Your task to perform on an android device: turn on translation in the chrome app Image 0: 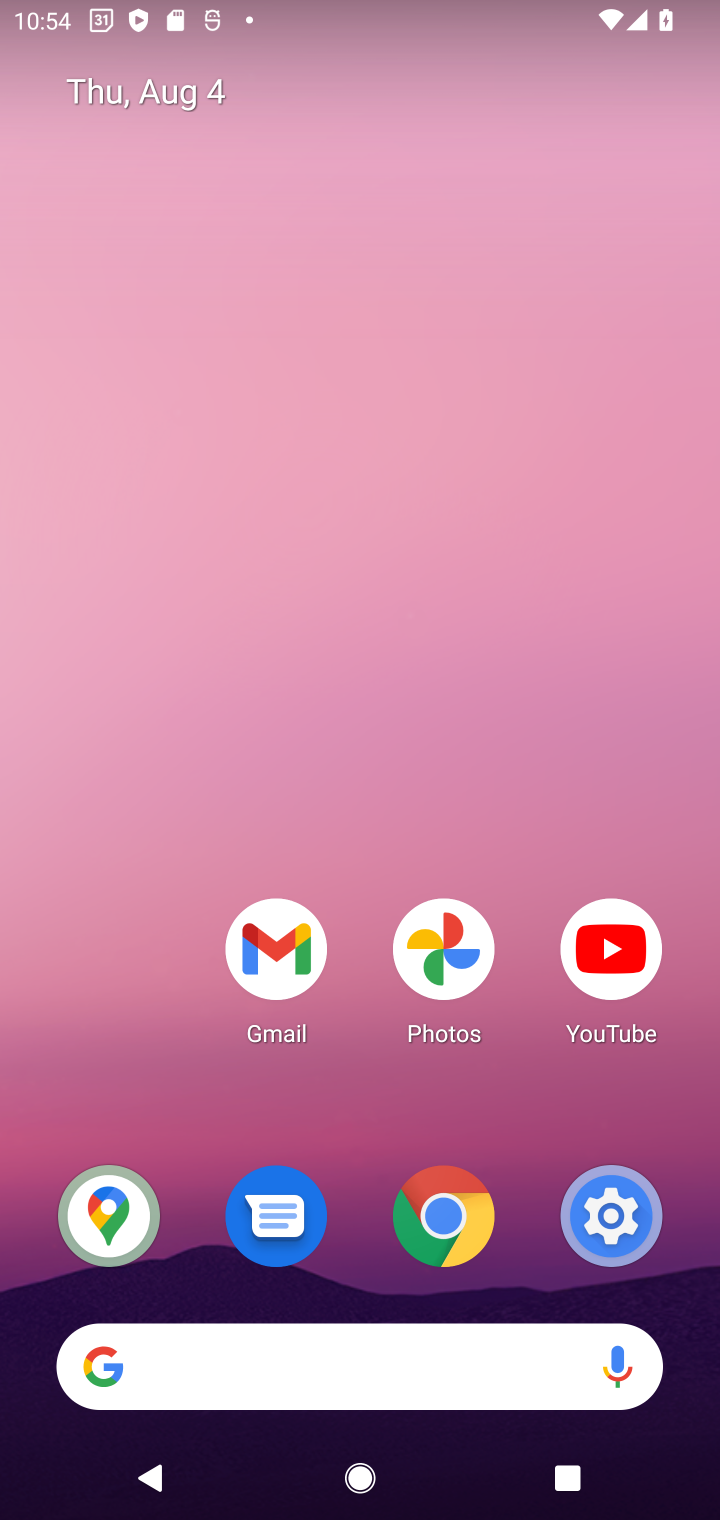
Step 0: click (443, 1214)
Your task to perform on an android device: turn on translation in the chrome app Image 1: 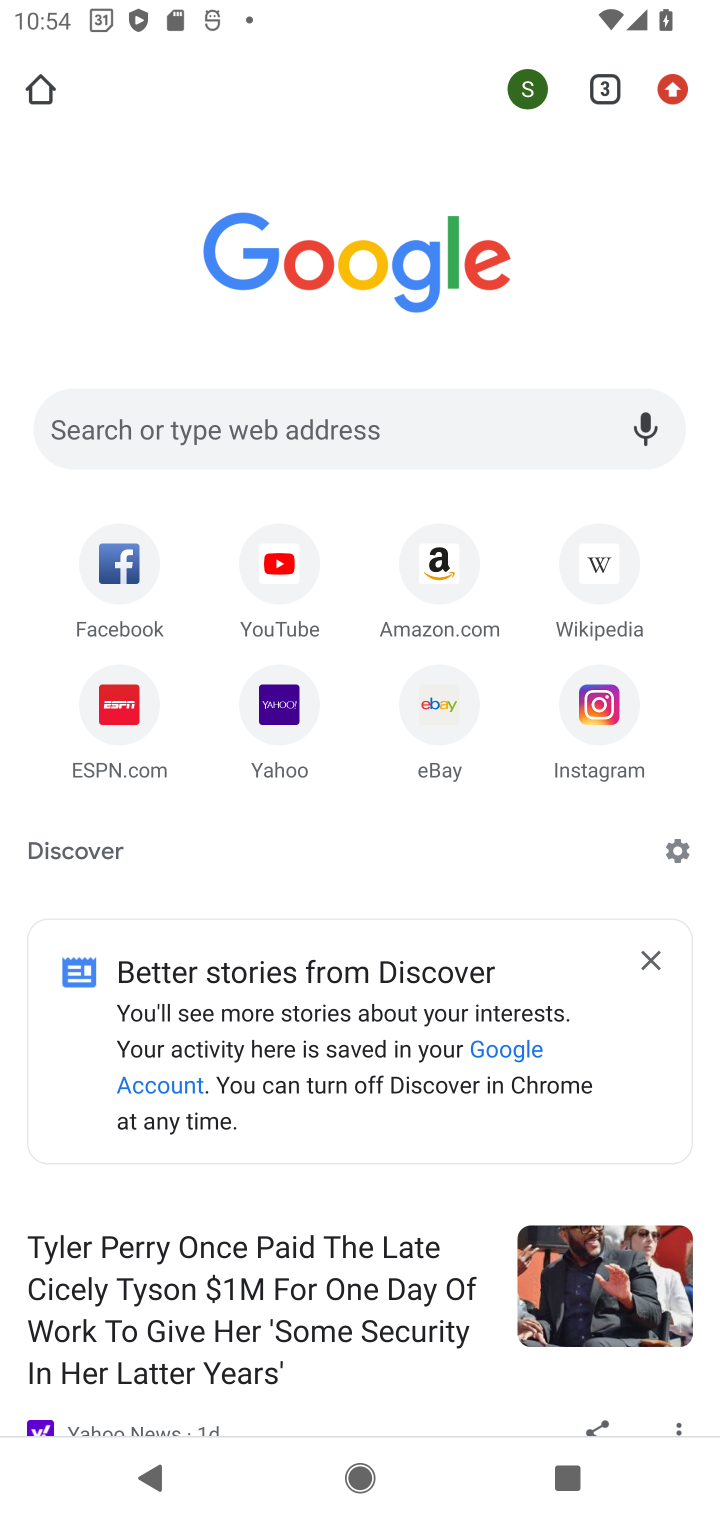
Step 1: click (672, 88)
Your task to perform on an android device: turn on translation in the chrome app Image 2: 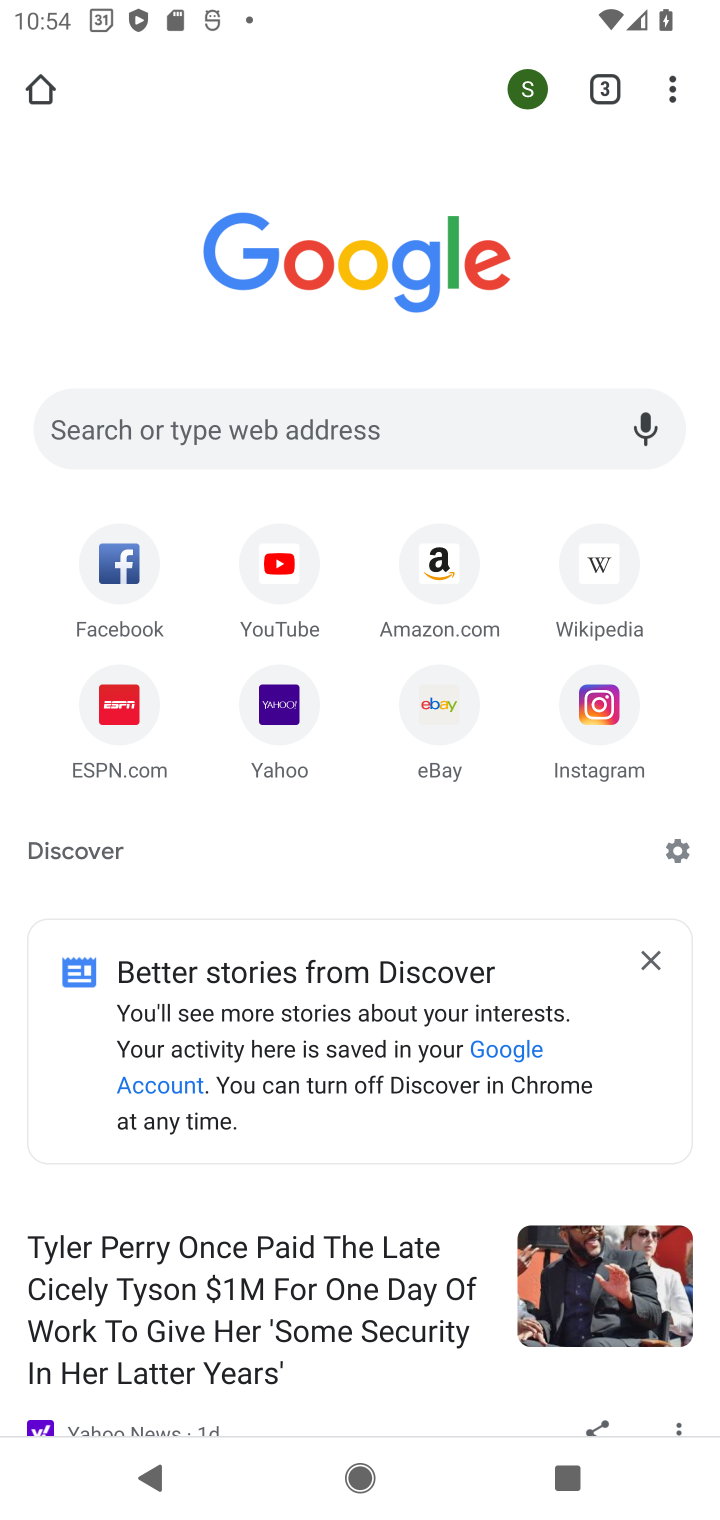
Step 2: click (680, 92)
Your task to perform on an android device: turn on translation in the chrome app Image 3: 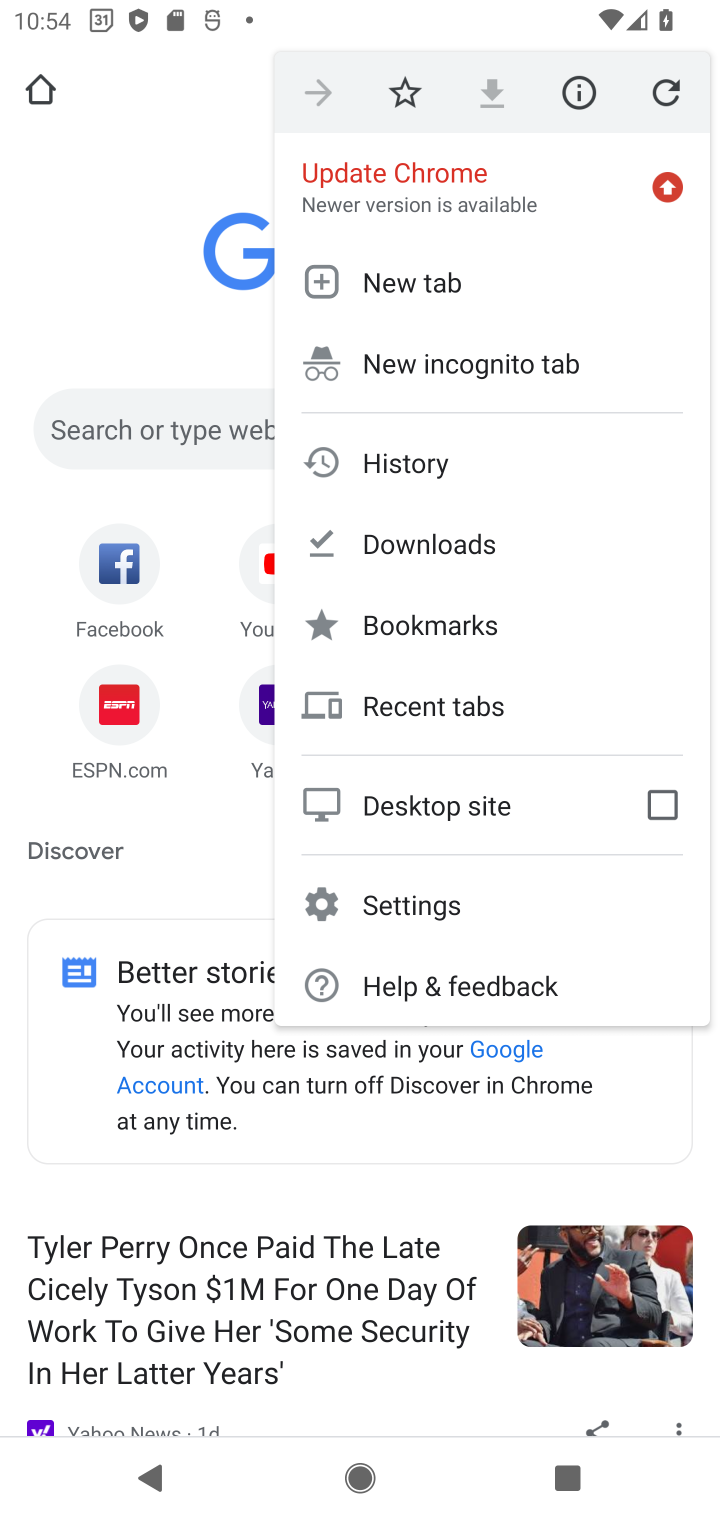
Step 3: click (449, 896)
Your task to perform on an android device: turn on translation in the chrome app Image 4: 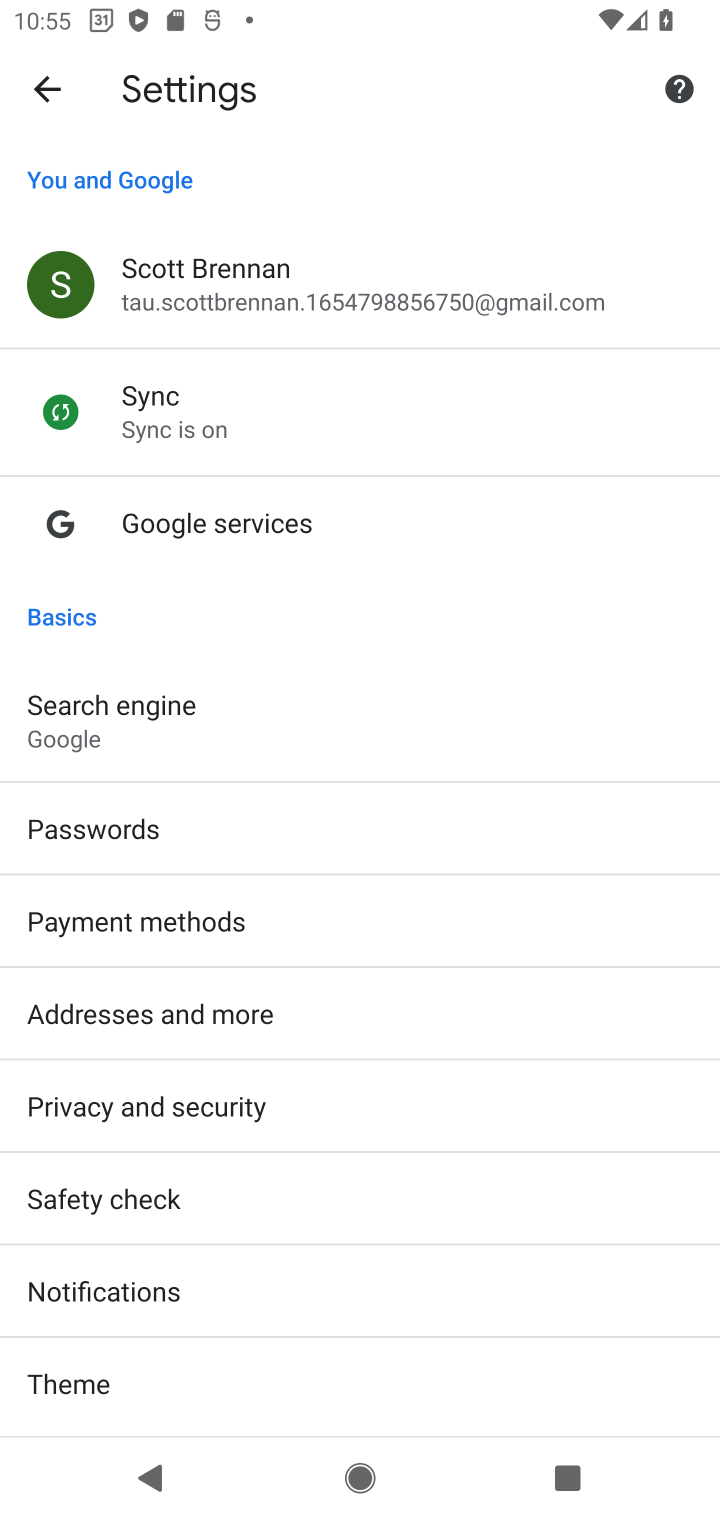
Step 4: drag from (179, 1039) to (288, 685)
Your task to perform on an android device: turn on translation in the chrome app Image 5: 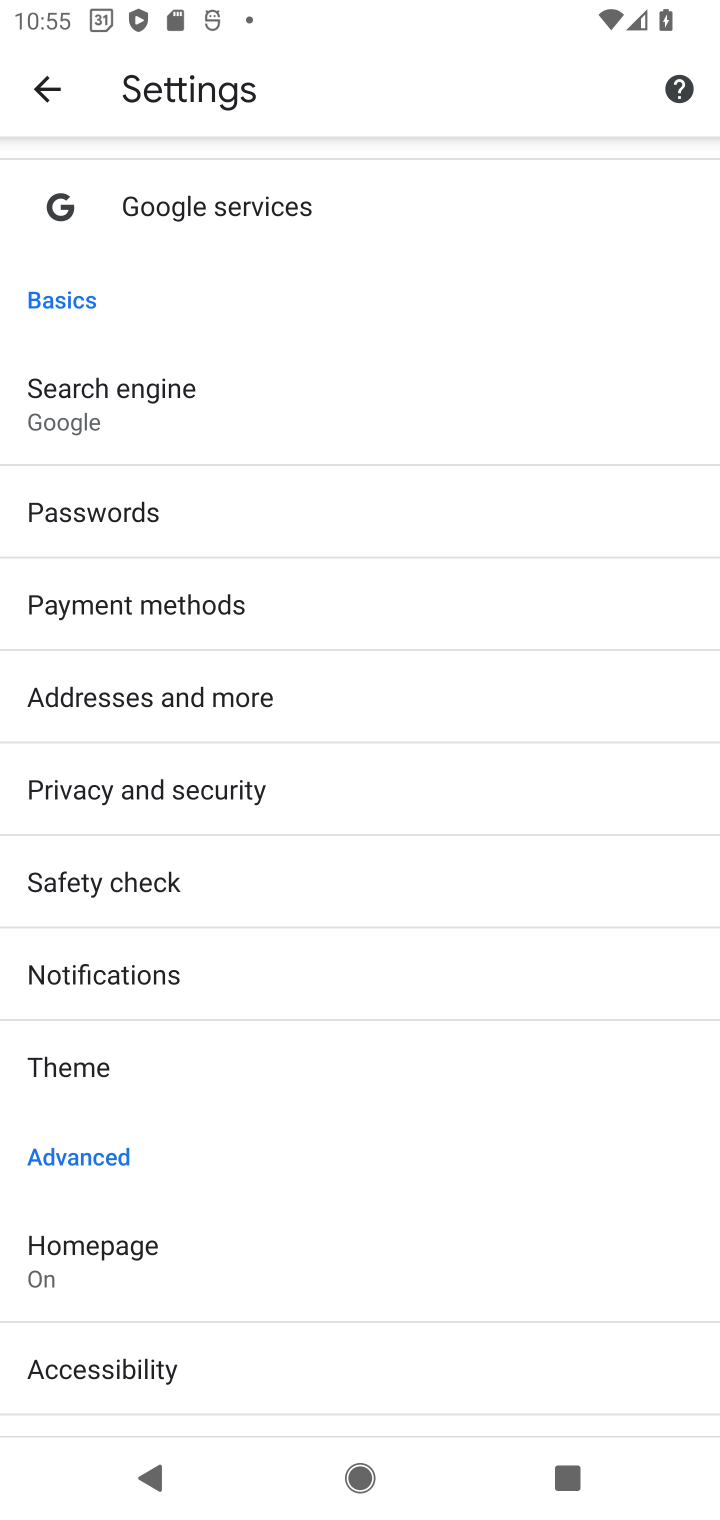
Step 5: drag from (171, 1138) to (268, 855)
Your task to perform on an android device: turn on translation in the chrome app Image 6: 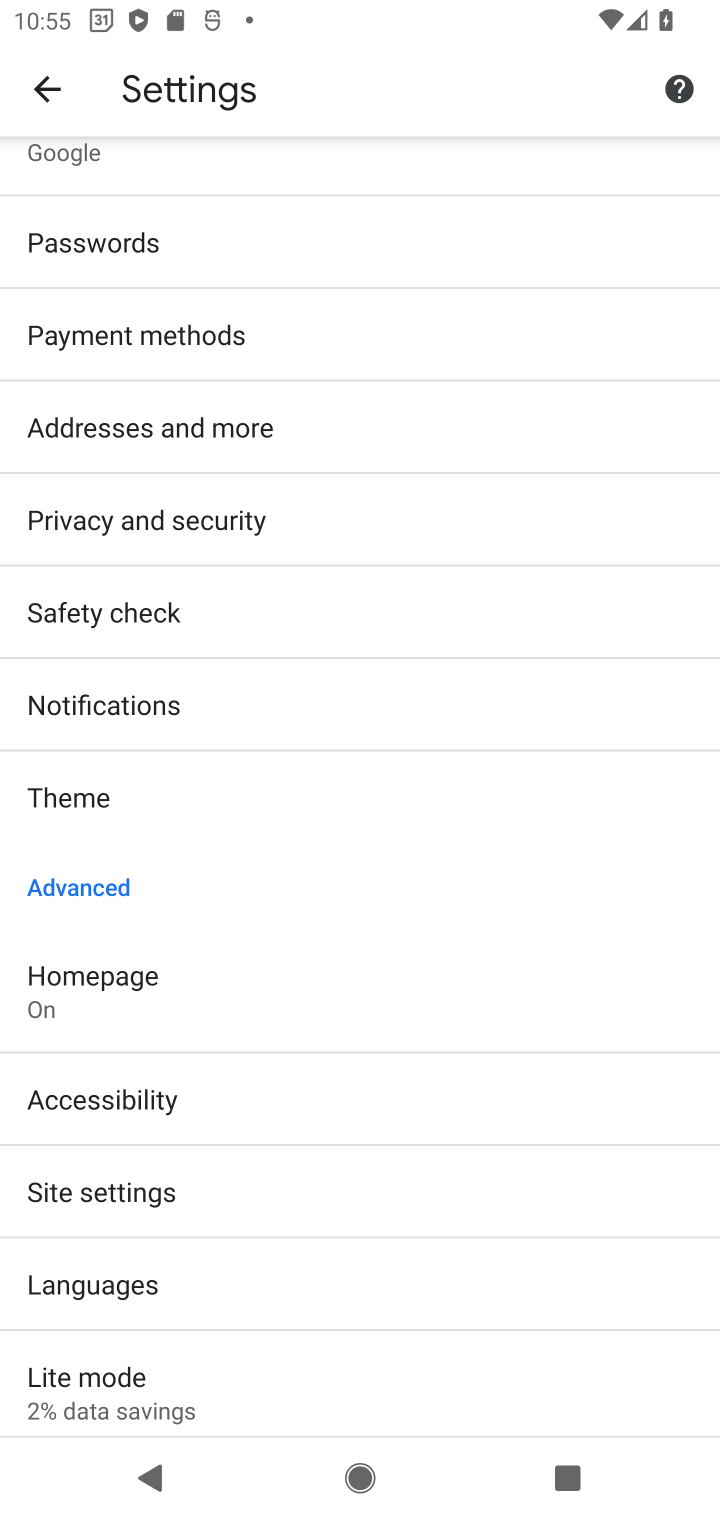
Step 6: drag from (174, 1134) to (282, 956)
Your task to perform on an android device: turn on translation in the chrome app Image 7: 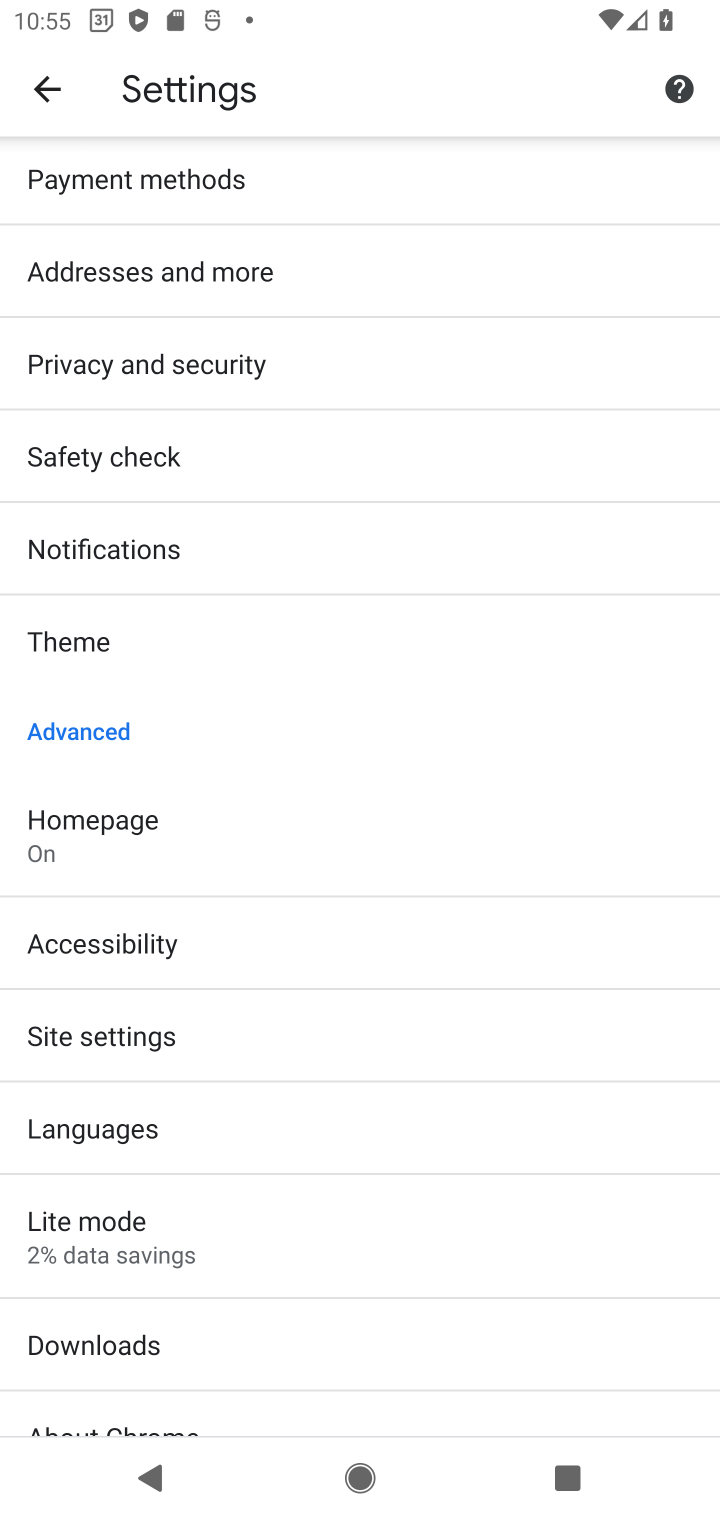
Step 7: click (150, 1143)
Your task to perform on an android device: turn on translation in the chrome app Image 8: 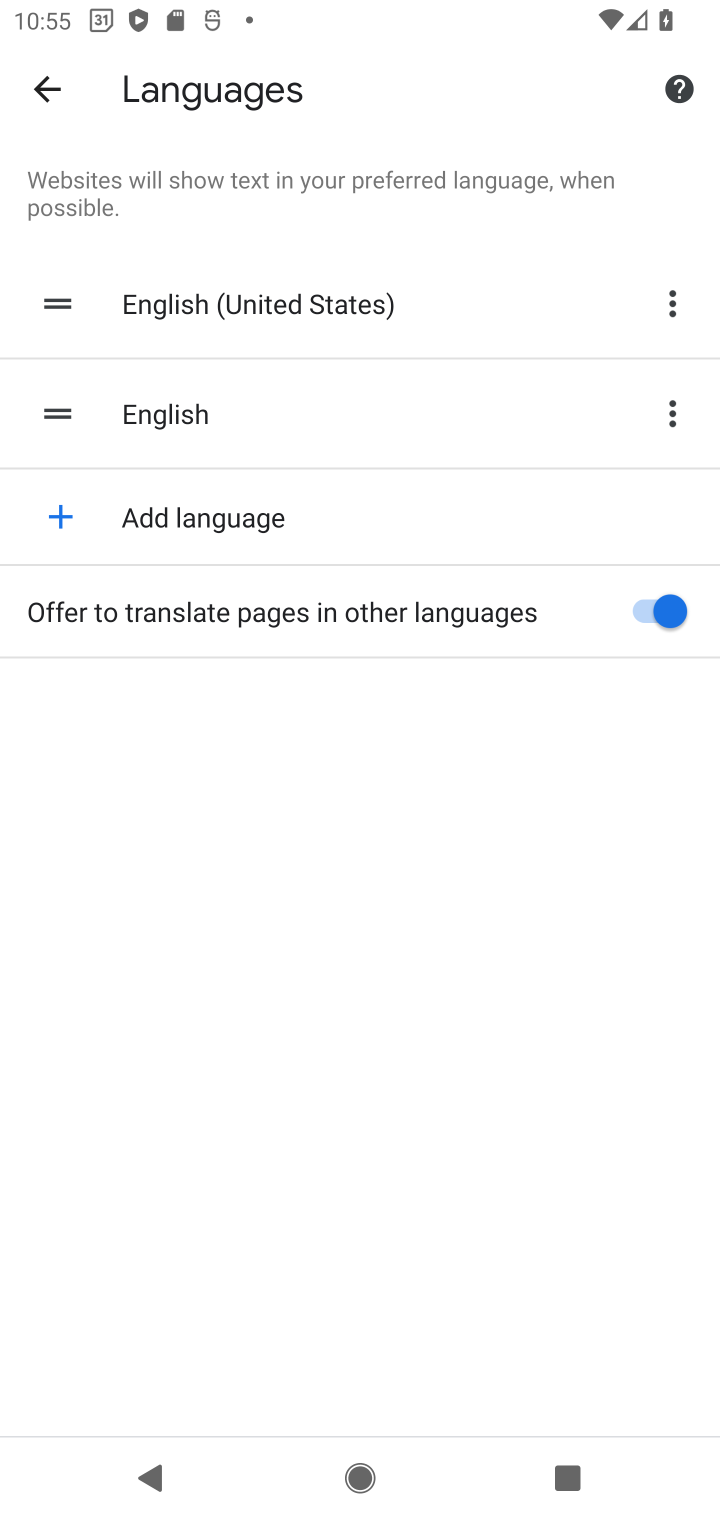
Step 8: task complete